Your task to perform on an android device: clear all cookies in the chrome app Image 0: 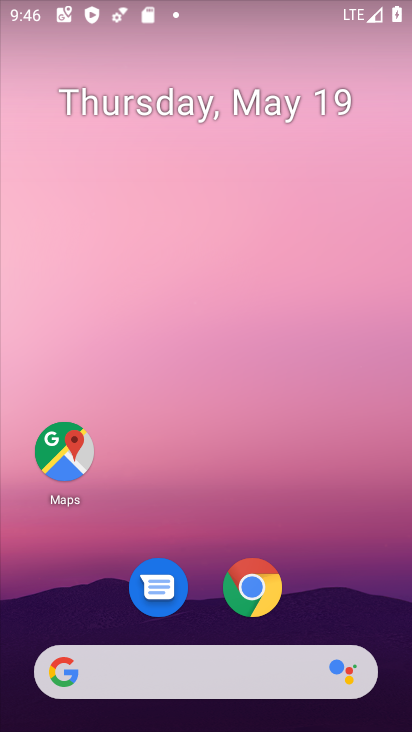
Step 0: click (255, 585)
Your task to perform on an android device: clear all cookies in the chrome app Image 1: 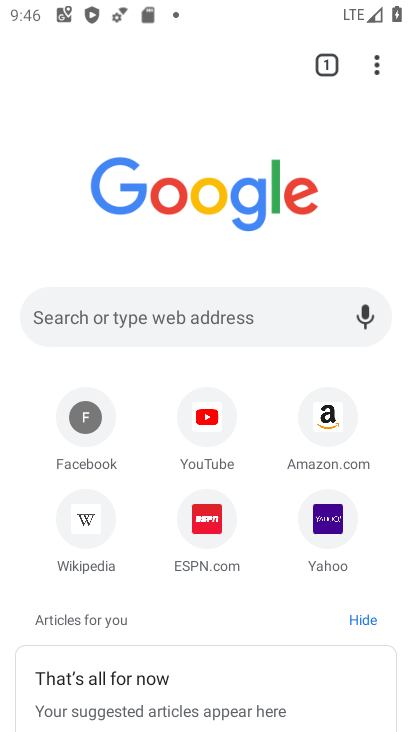
Step 1: click (388, 61)
Your task to perform on an android device: clear all cookies in the chrome app Image 2: 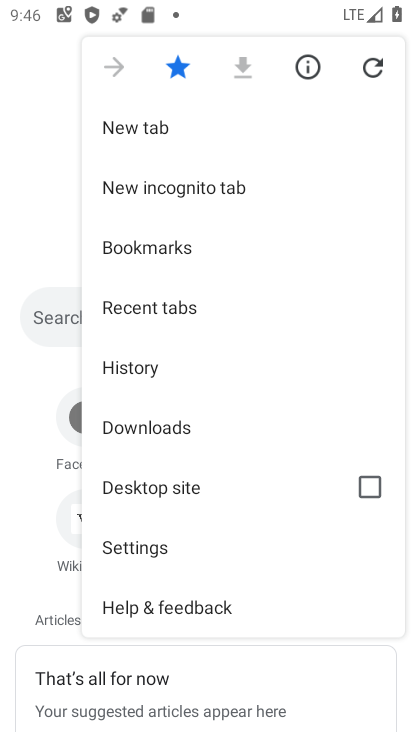
Step 2: click (135, 380)
Your task to perform on an android device: clear all cookies in the chrome app Image 3: 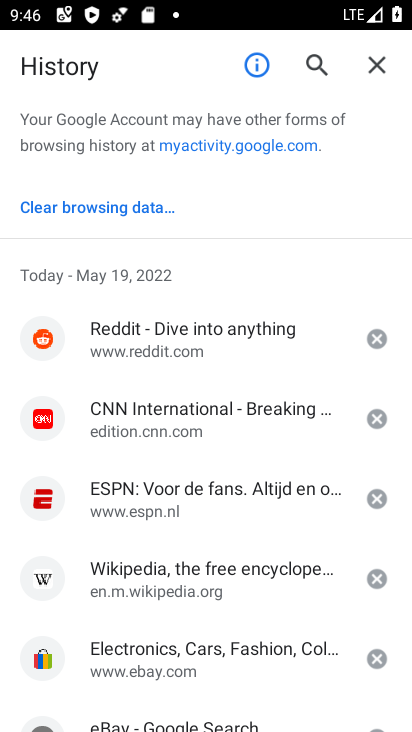
Step 3: click (108, 151)
Your task to perform on an android device: clear all cookies in the chrome app Image 4: 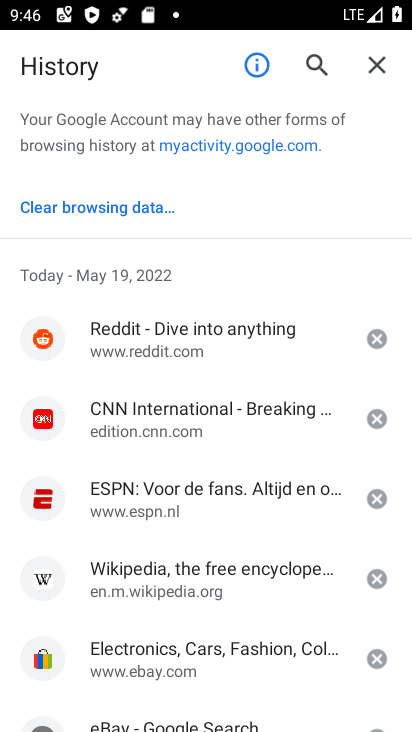
Step 4: click (123, 213)
Your task to perform on an android device: clear all cookies in the chrome app Image 5: 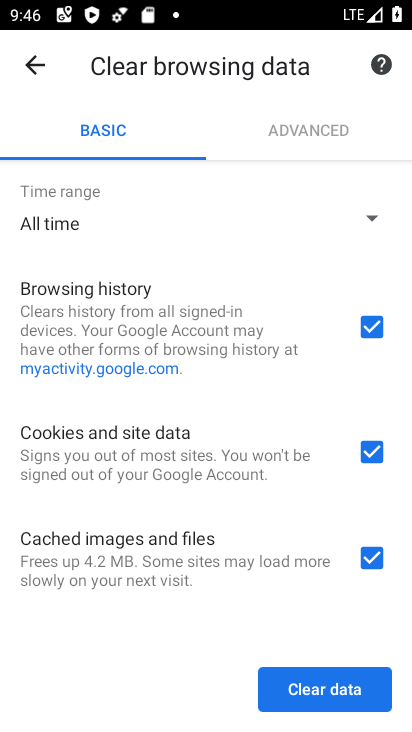
Step 5: click (376, 330)
Your task to perform on an android device: clear all cookies in the chrome app Image 6: 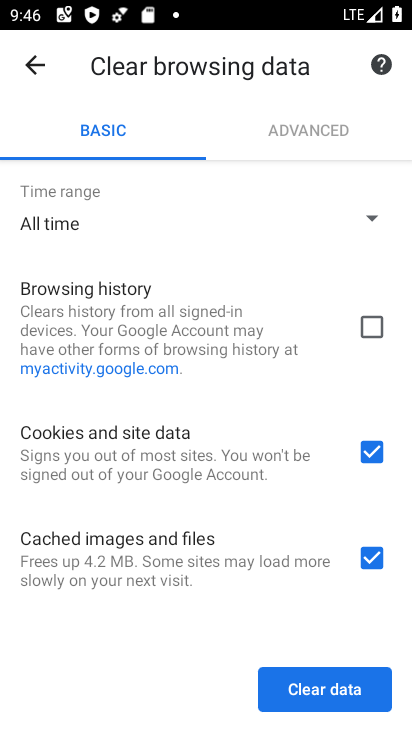
Step 6: click (365, 557)
Your task to perform on an android device: clear all cookies in the chrome app Image 7: 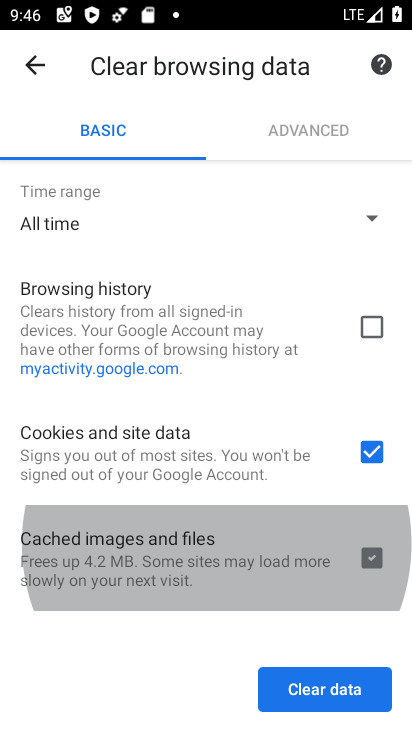
Step 7: click (314, 709)
Your task to perform on an android device: clear all cookies in the chrome app Image 8: 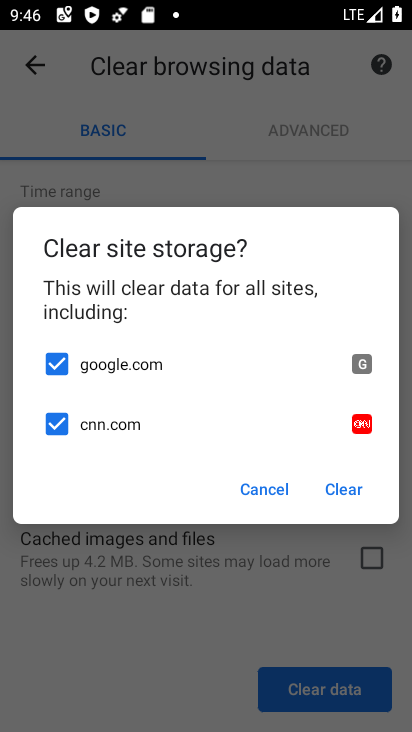
Step 8: click (356, 493)
Your task to perform on an android device: clear all cookies in the chrome app Image 9: 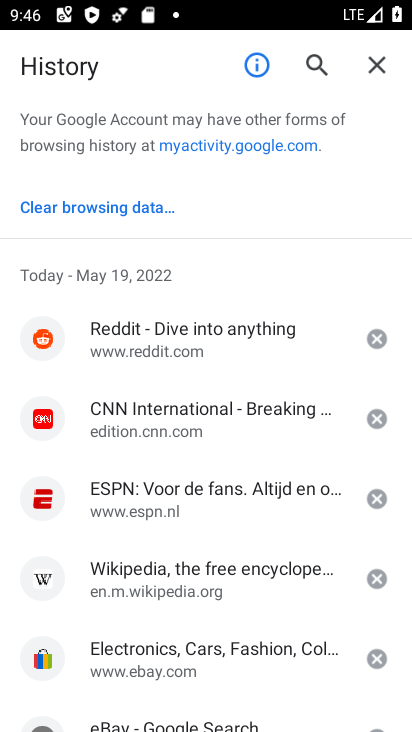
Step 9: task complete